Your task to perform on an android device: find which apps use the phone's location Image 0: 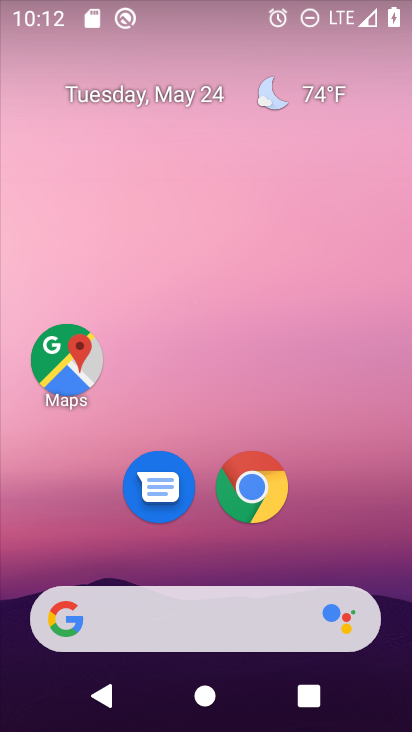
Step 0: drag from (357, 574) to (378, 9)
Your task to perform on an android device: find which apps use the phone's location Image 1: 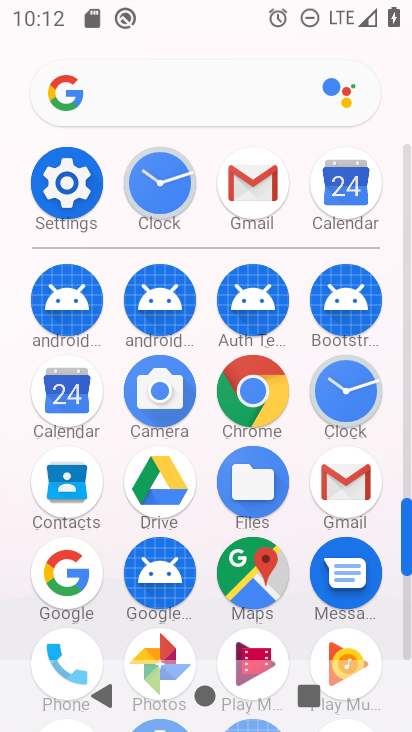
Step 1: click (57, 185)
Your task to perform on an android device: find which apps use the phone's location Image 2: 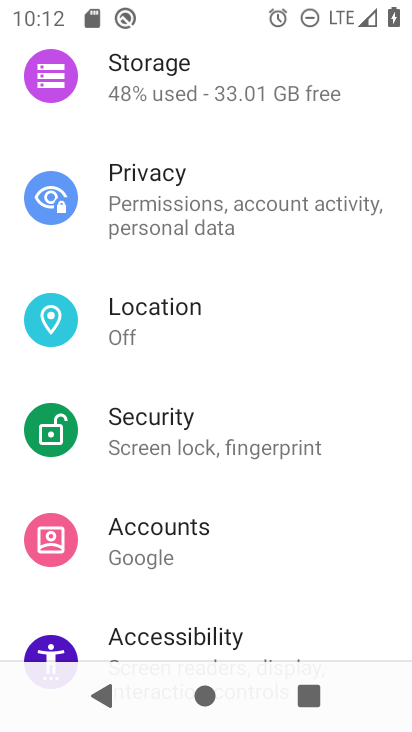
Step 2: click (121, 337)
Your task to perform on an android device: find which apps use the phone's location Image 3: 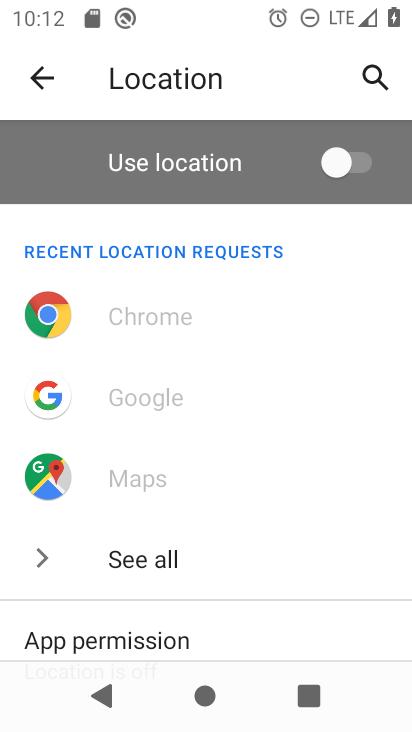
Step 3: drag from (212, 541) to (175, 156)
Your task to perform on an android device: find which apps use the phone's location Image 4: 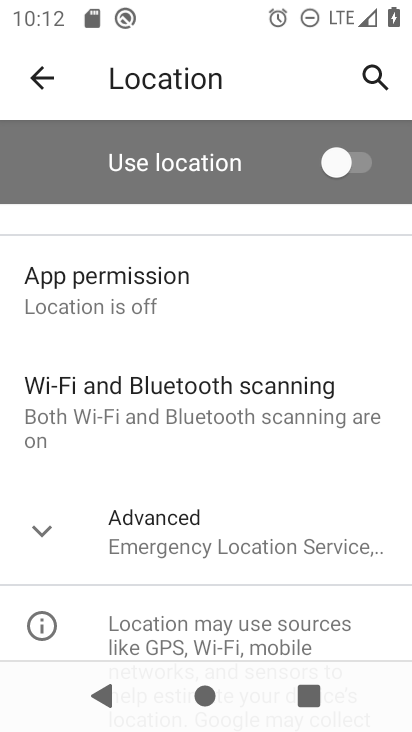
Step 4: click (103, 299)
Your task to perform on an android device: find which apps use the phone's location Image 5: 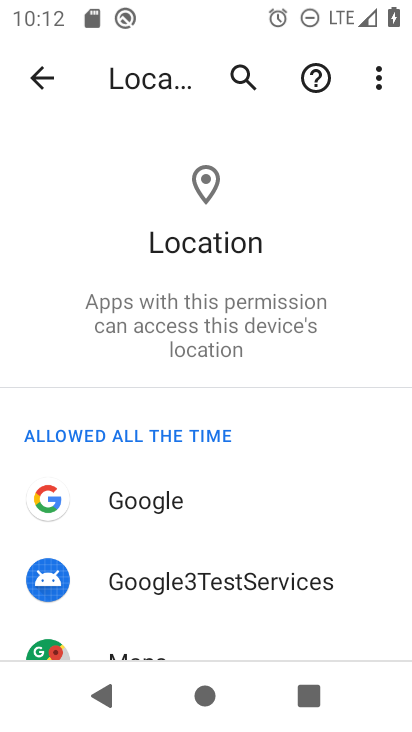
Step 5: task complete